Your task to perform on an android device: Go to Yahoo.com Image 0: 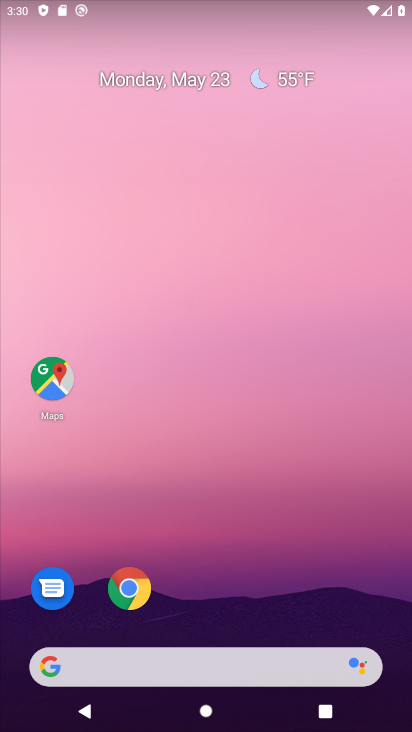
Step 0: drag from (196, 581) to (254, 74)
Your task to perform on an android device: Go to Yahoo.com Image 1: 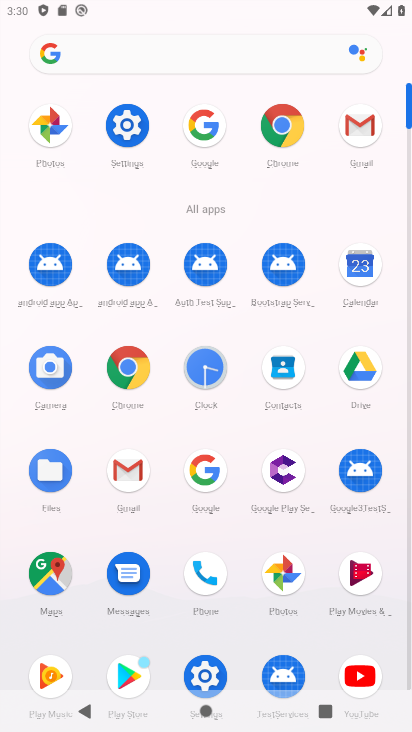
Step 1: click (278, 121)
Your task to perform on an android device: Go to Yahoo.com Image 2: 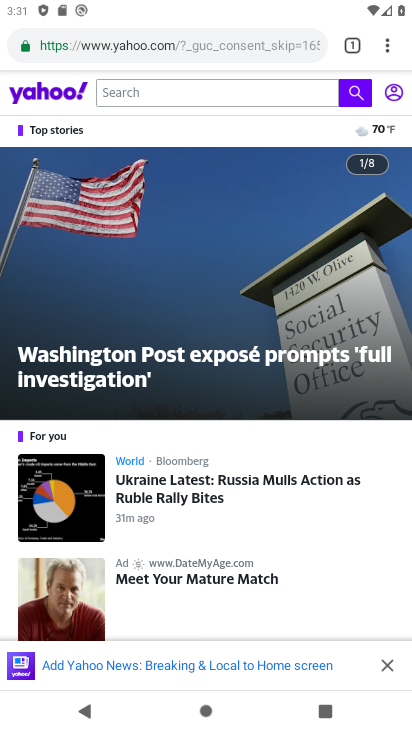
Step 2: task complete